Your task to perform on an android device: Open Google Maps and go to "Timeline" Image 0: 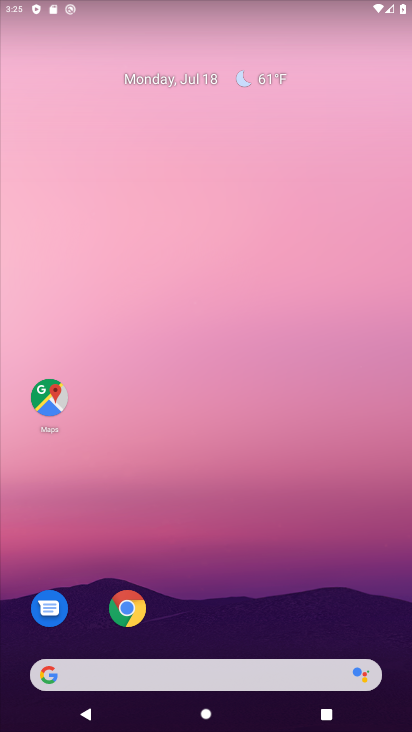
Step 0: drag from (274, 586) to (172, 28)
Your task to perform on an android device: Open Google Maps and go to "Timeline" Image 1: 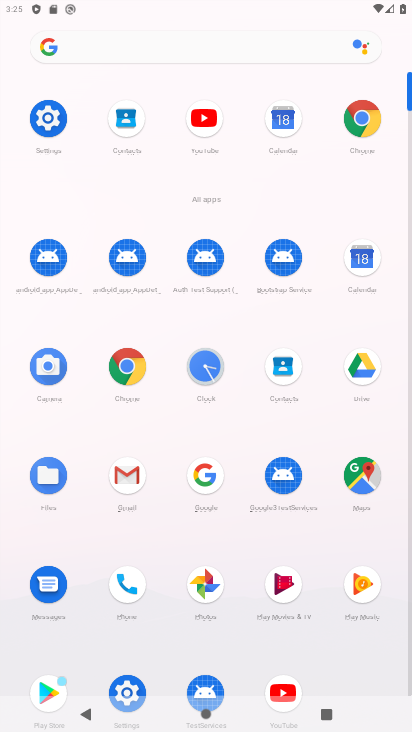
Step 1: click (375, 474)
Your task to perform on an android device: Open Google Maps and go to "Timeline" Image 2: 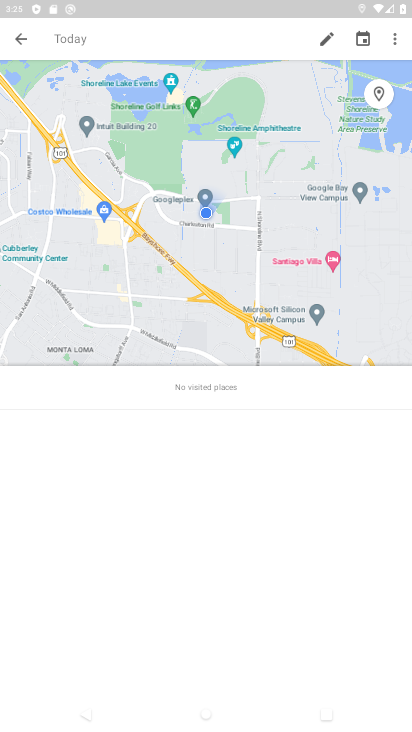
Step 2: task complete